Your task to perform on an android device: turn off notifications settings in the gmail app Image 0: 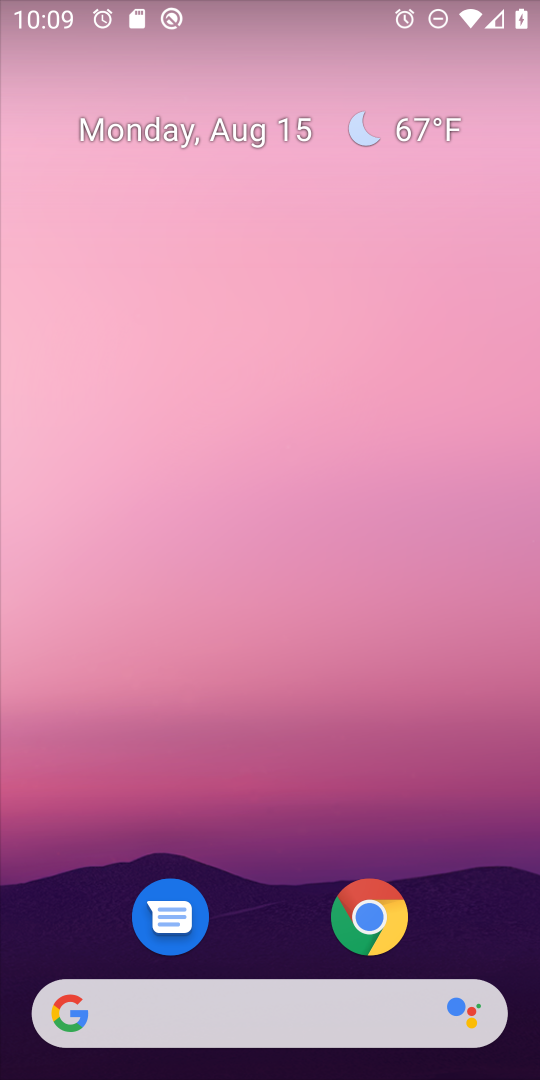
Step 0: drag from (273, 764) to (384, 42)
Your task to perform on an android device: turn off notifications settings in the gmail app Image 1: 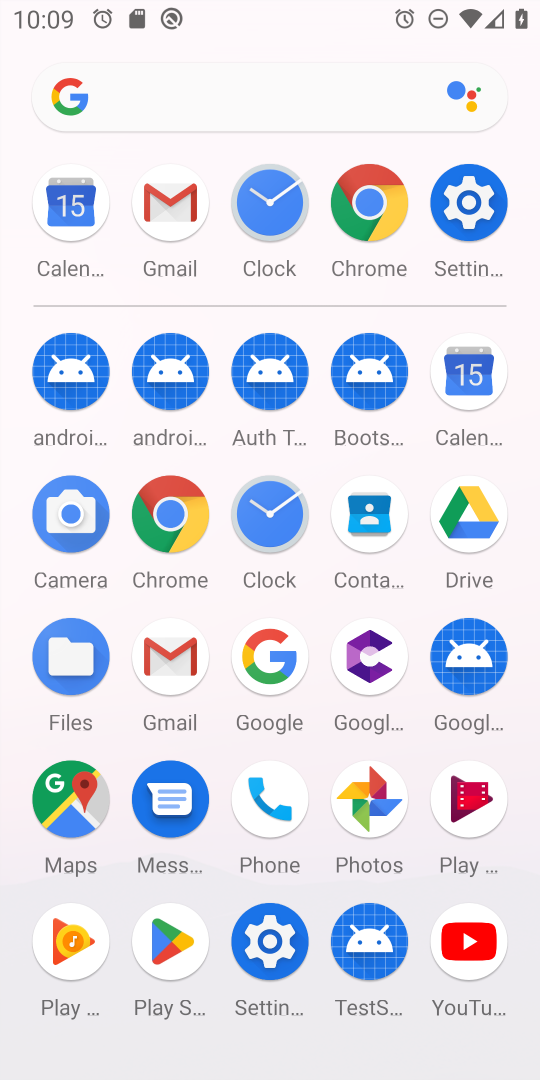
Step 1: drag from (242, 95) to (242, 28)
Your task to perform on an android device: turn off notifications settings in the gmail app Image 2: 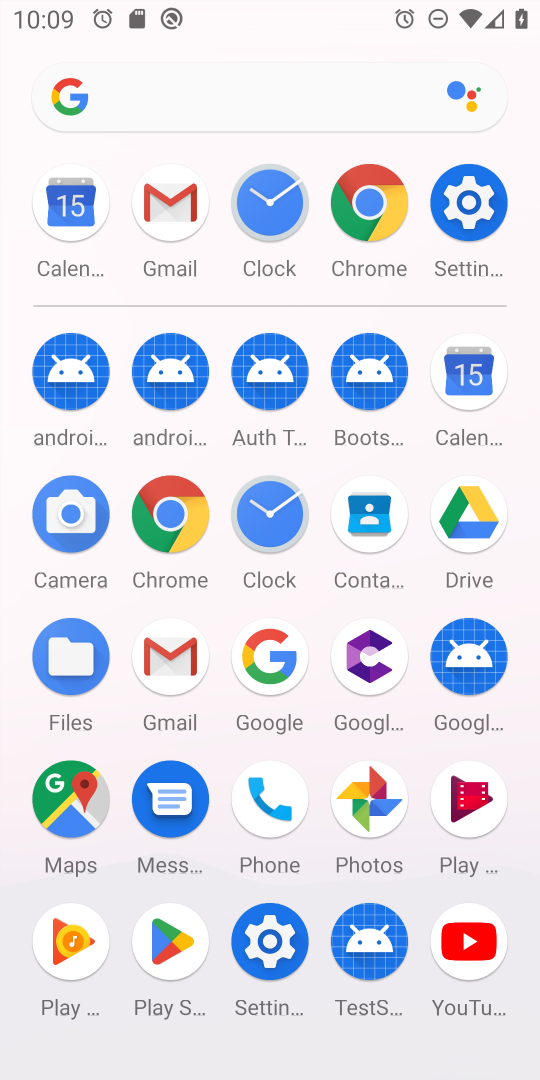
Step 2: click (174, 198)
Your task to perform on an android device: turn off notifications settings in the gmail app Image 3: 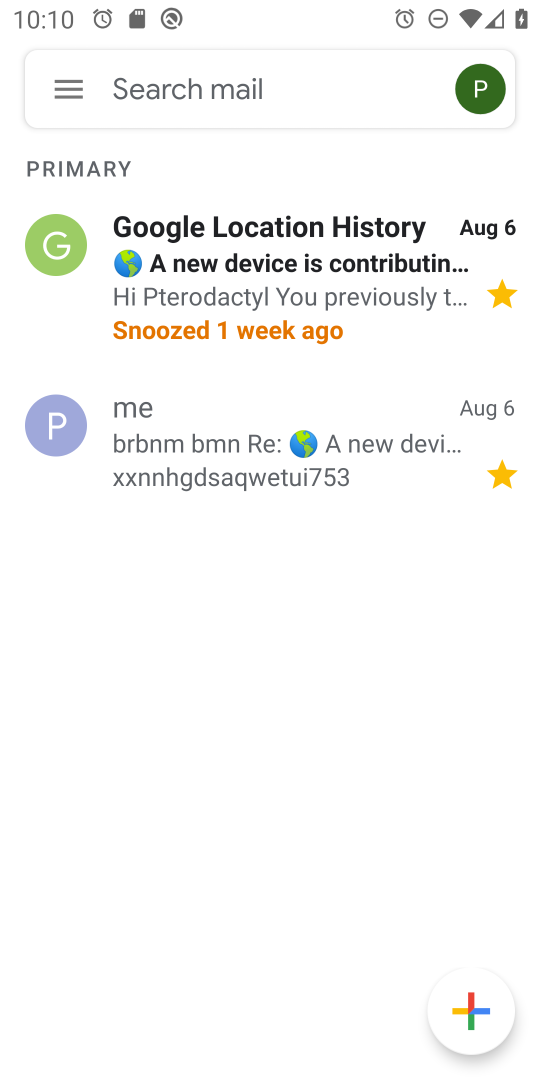
Step 3: click (68, 77)
Your task to perform on an android device: turn off notifications settings in the gmail app Image 4: 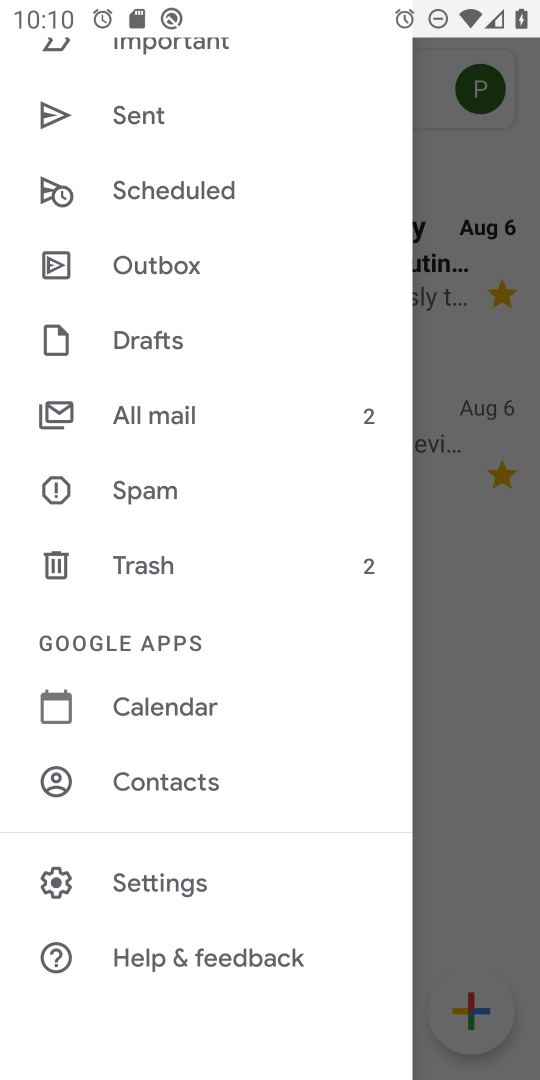
Step 4: click (160, 878)
Your task to perform on an android device: turn off notifications settings in the gmail app Image 5: 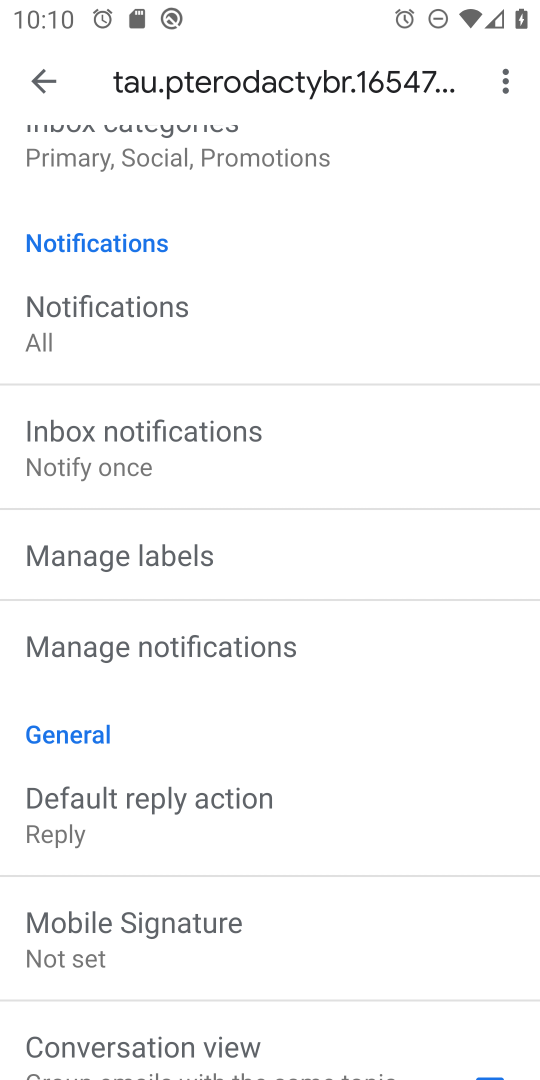
Step 5: click (298, 646)
Your task to perform on an android device: turn off notifications settings in the gmail app Image 6: 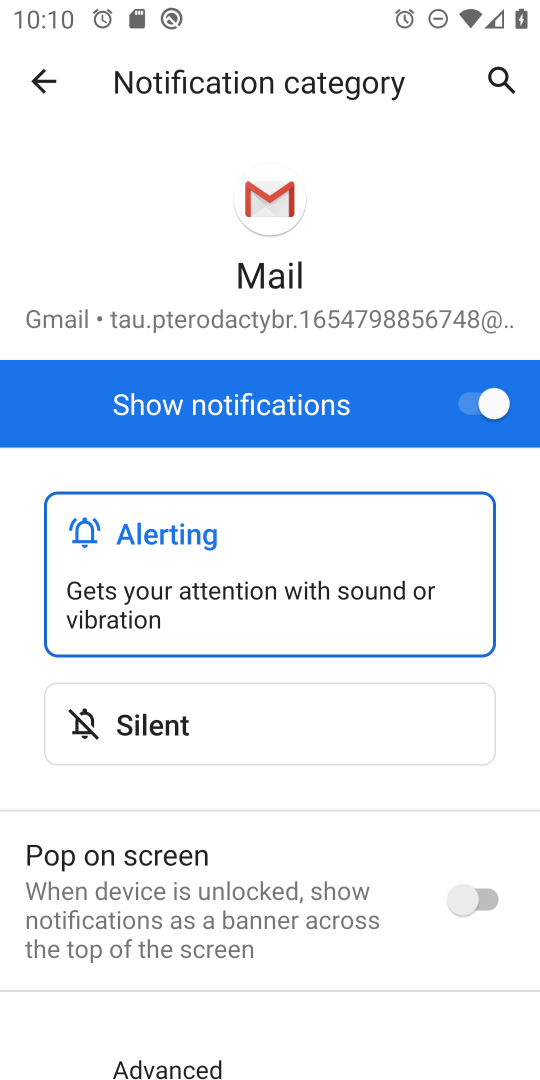
Step 6: click (500, 395)
Your task to perform on an android device: turn off notifications settings in the gmail app Image 7: 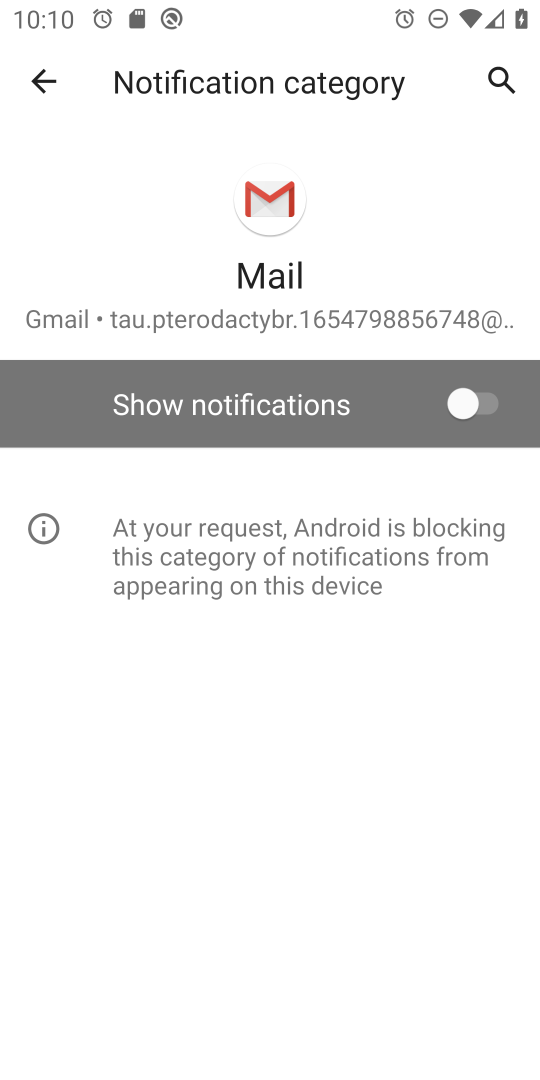
Step 7: task complete